Your task to perform on an android device: stop showing notifications on the lock screen Image 0: 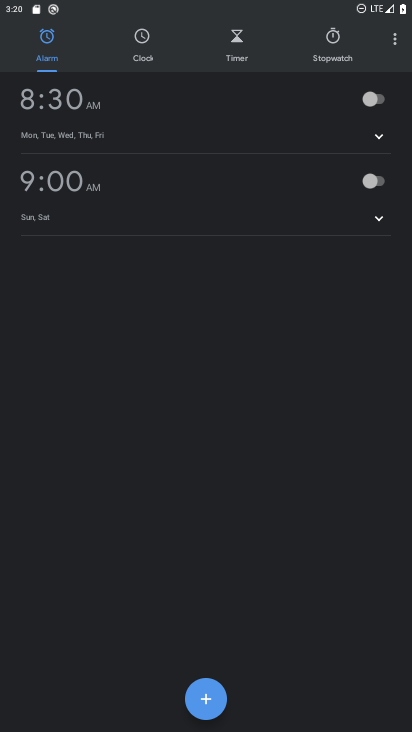
Step 0: press home button
Your task to perform on an android device: stop showing notifications on the lock screen Image 1: 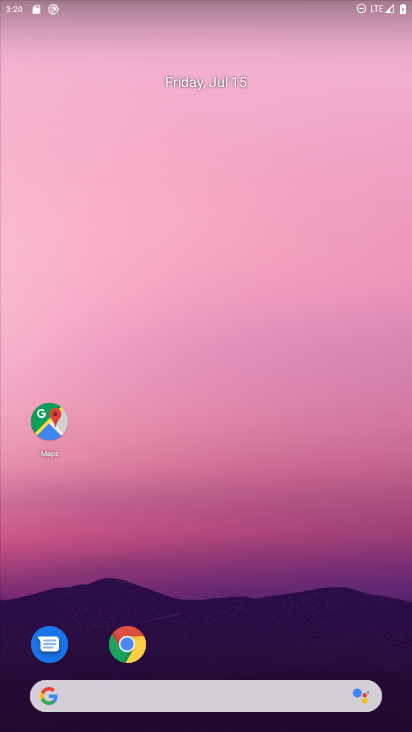
Step 1: drag from (34, 571) to (207, 83)
Your task to perform on an android device: stop showing notifications on the lock screen Image 2: 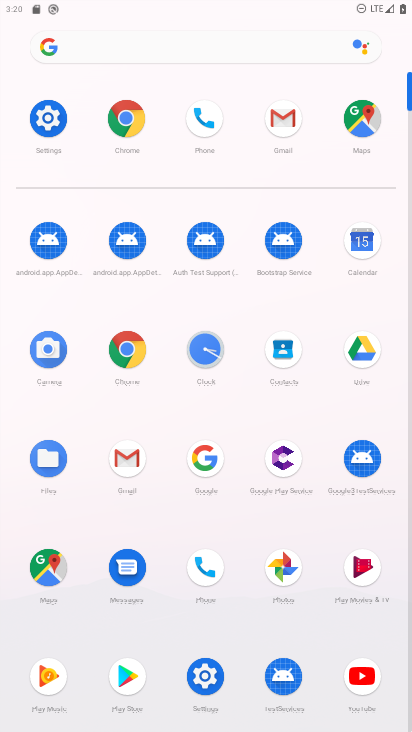
Step 2: click (31, 124)
Your task to perform on an android device: stop showing notifications on the lock screen Image 3: 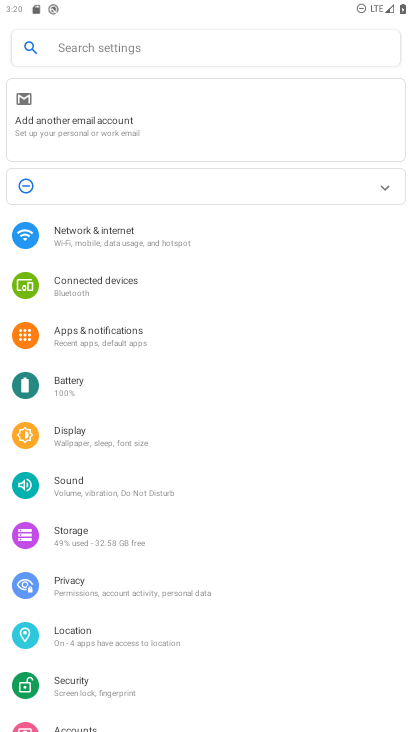
Step 3: click (141, 336)
Your task to perform on an android device: stop showing notifications on the lock screen Image 4: 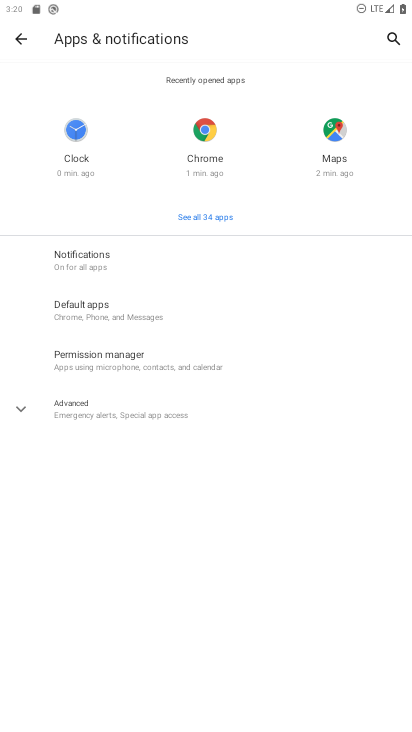
Step 4: click (79, 277)
Your task to perform on an android device: stop showing notifications on the lock screen Image 5: 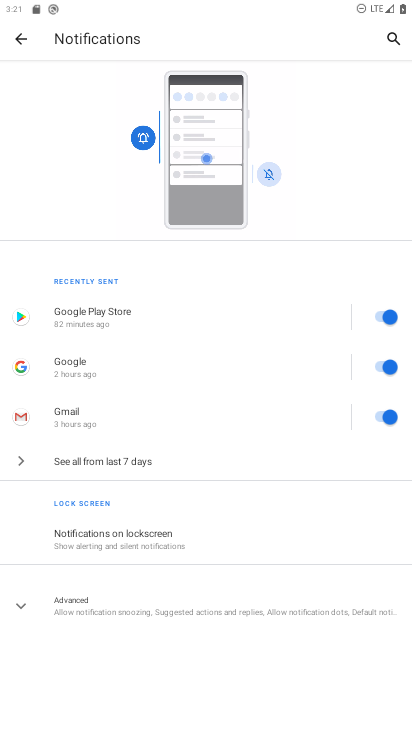
Step 5: click (122, 619)
Your task to perform on an android device: stop showing notifications on the lock screen Image 6: 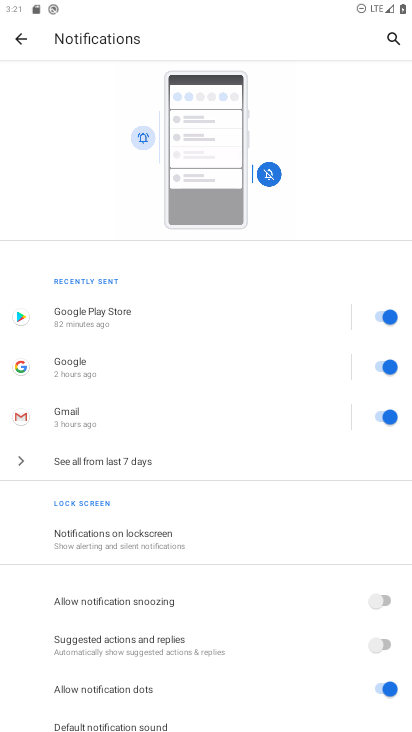
Step 6: drag from (57, 581) to (215, 244)
Your task to perform on an android device: stop showing notifications on the lock screen Image 7: 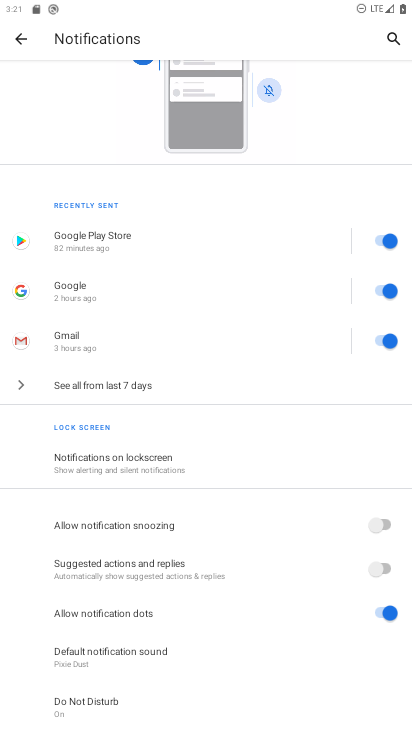
Step 7: click (163, 461)
Your task to perform on an android device: stop showing notifications on the lock screen Image 8: 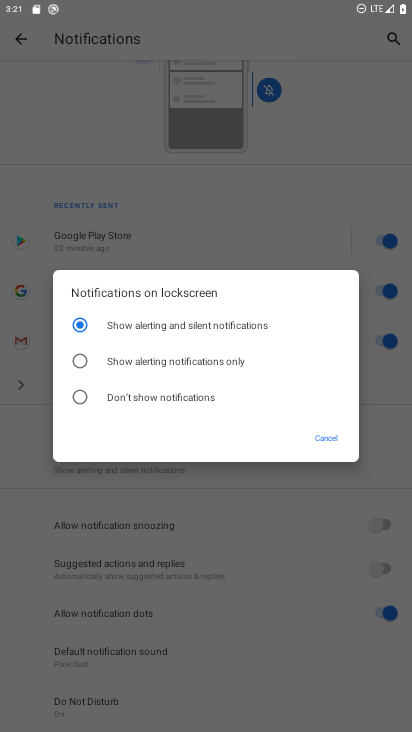
Step 8: click (181, 411)
Your task to perform on an android device: stop showing notifications on the lock screen Image 9: 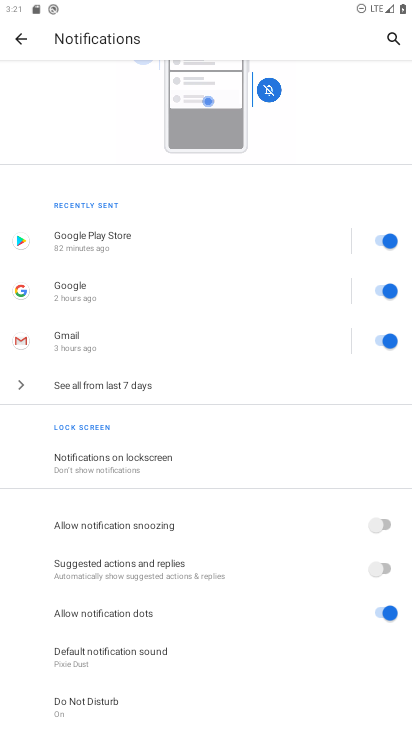
Step 9: task complete